Your task to perform on an android device: check android version Image 0: 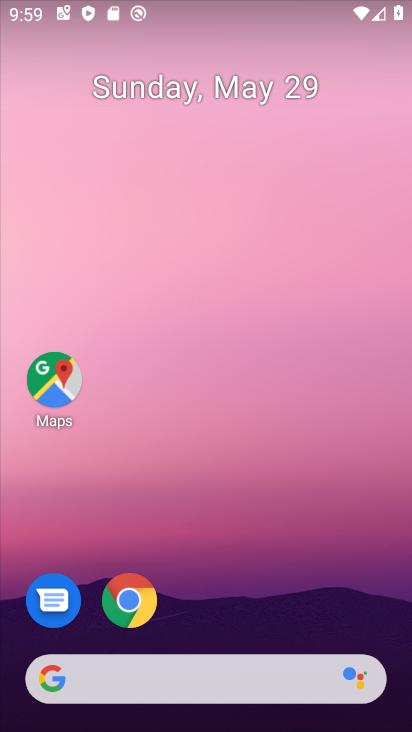
Step 0: drag from (227, 727) to (227, 141)
Your task to perform on an android device: check android version Image 1: 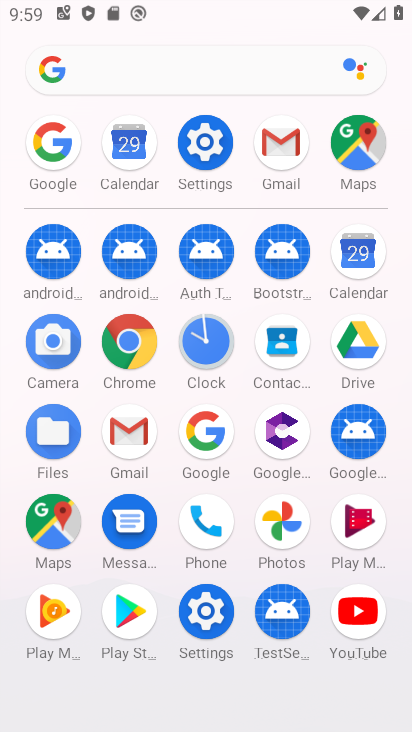
Step 1: click (195, 133)
Your task to perform on an android device: check android version Image 2: 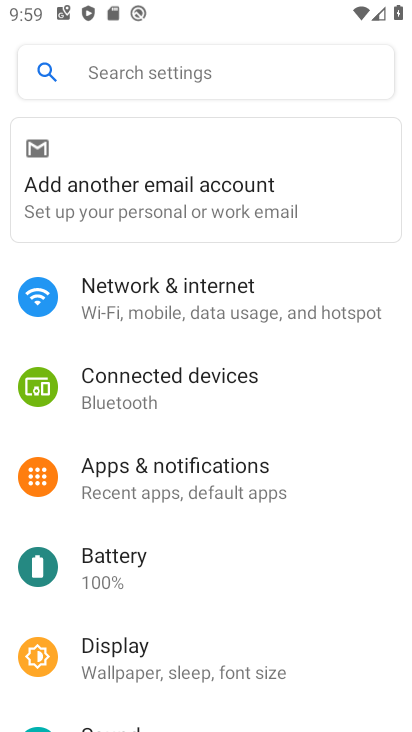
Step 2: drag from (201, 705) to (173, 228)
Your task to perform on an android device: check android version Image 3: 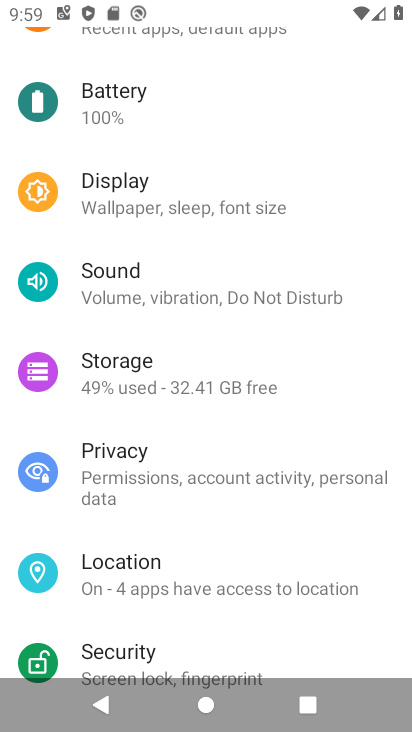
Step 3: drag from (195, 641) to (191, 173)
Your task to perform on an android device: check android version Image 4: 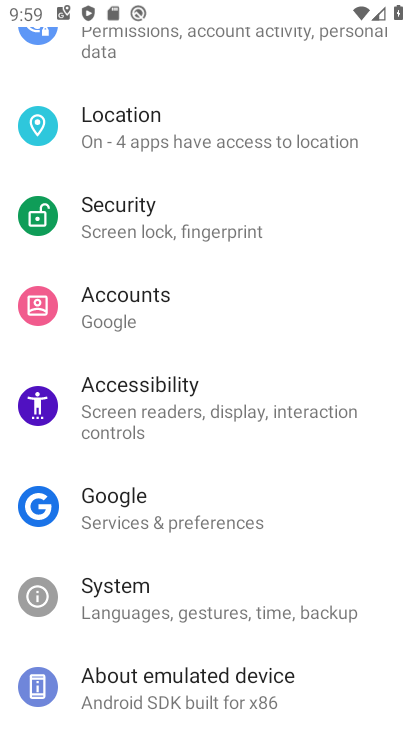
Step 4: drag from (214, 687) to (191, 184)
Your task to perform on an android device: check android version Image 5: 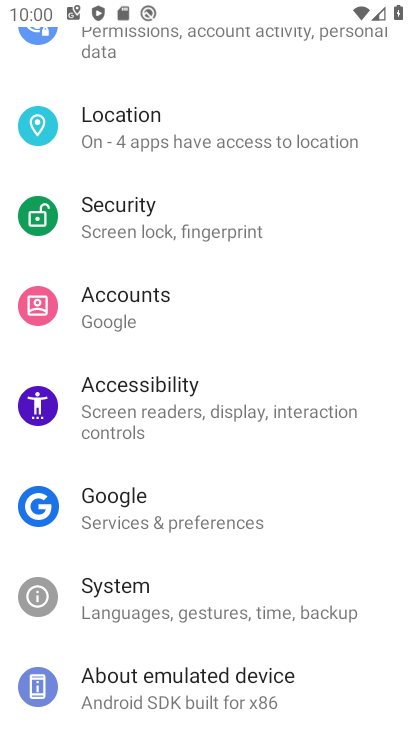
Step 5: click (167, 672)
Your task to perform on an android device: check android version Image 6: 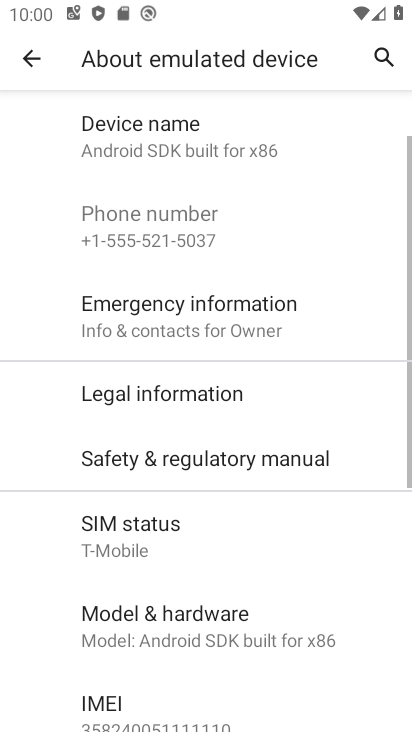
Step 6: drag from (188, 702) to (198, 89)
Your task to perform on an android device: check android version Image 7: 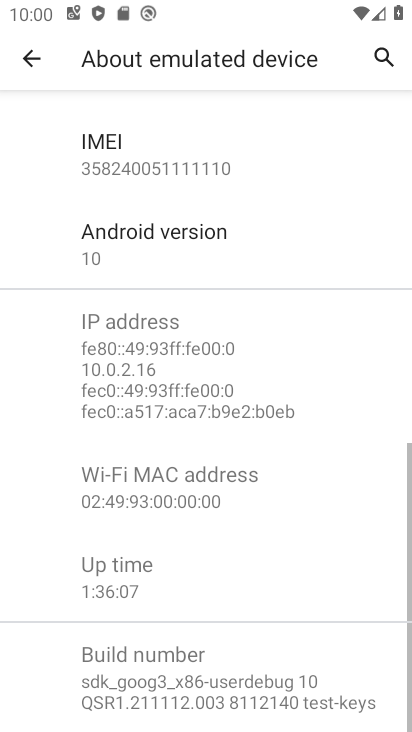
Step 7: click (155, 229)
Your task to perform on an android device: check android version Image 8: 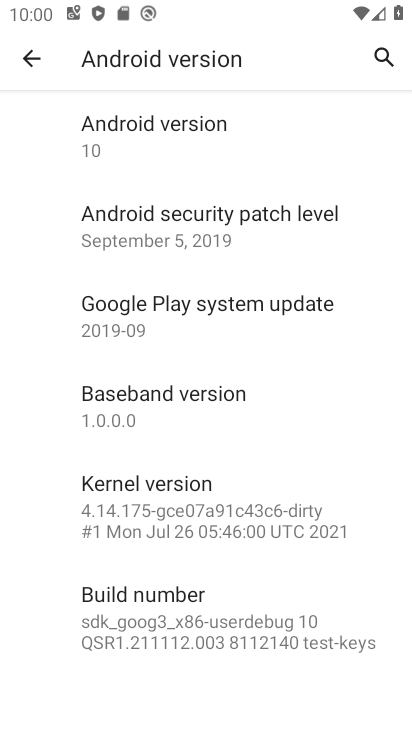
Step 8: task complete